Your task to perform on an android device: choose inbox layout in the gmail app Image 0: 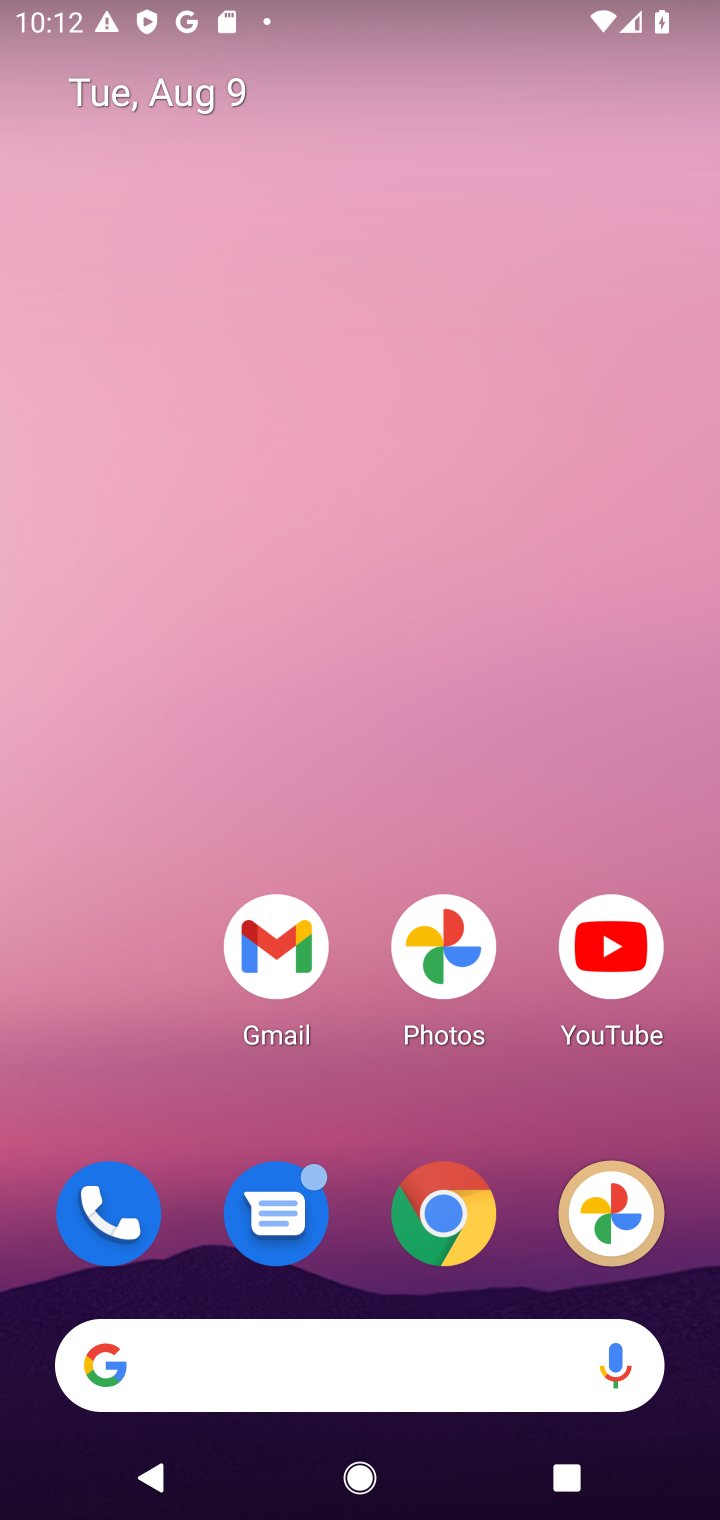
Step 0: drag from (340, 1278) to (671, 324)
Your task to perform on an android device: choose inbox layout in the gmail app Image 1: 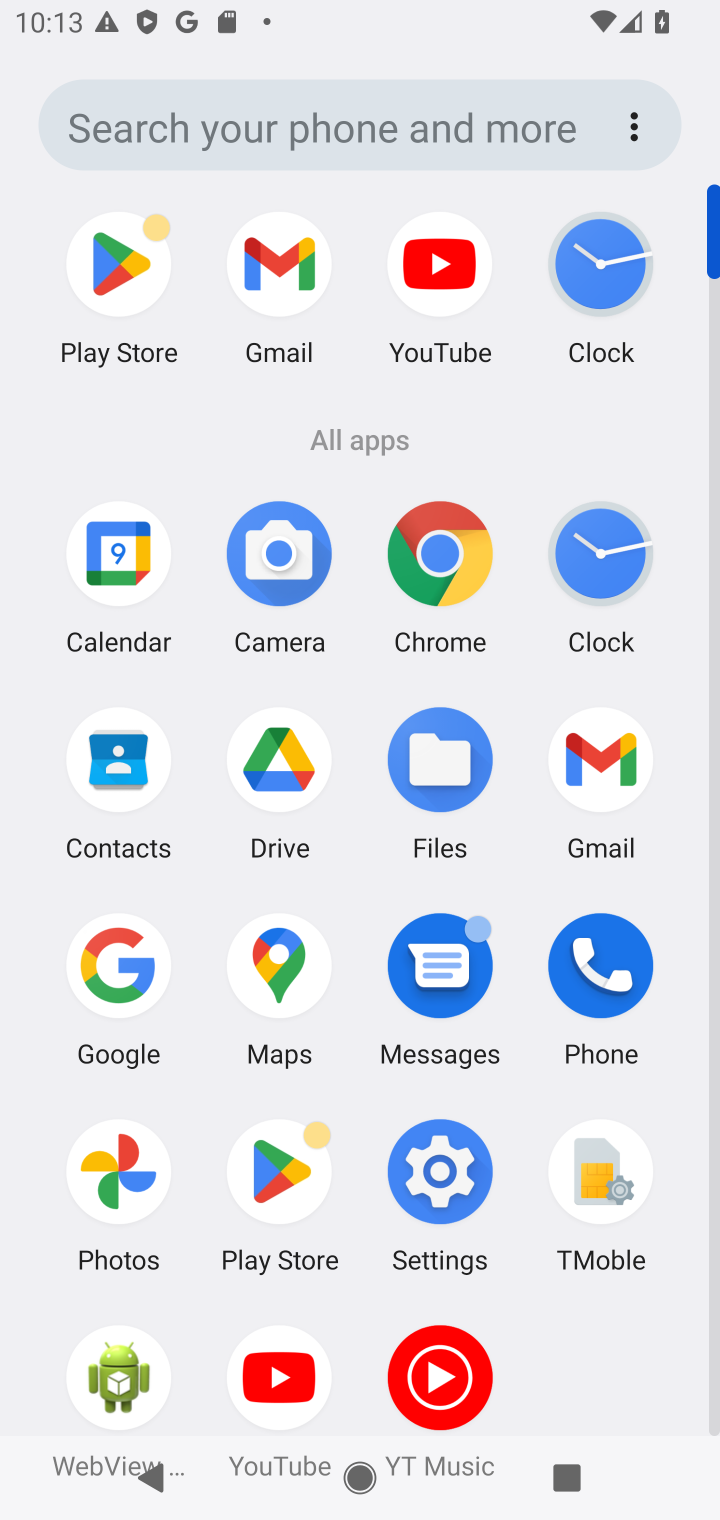
Step 1: click (582, 741)
Your task to perform on an android device: choose inbox layout in the gmail app Image 2: 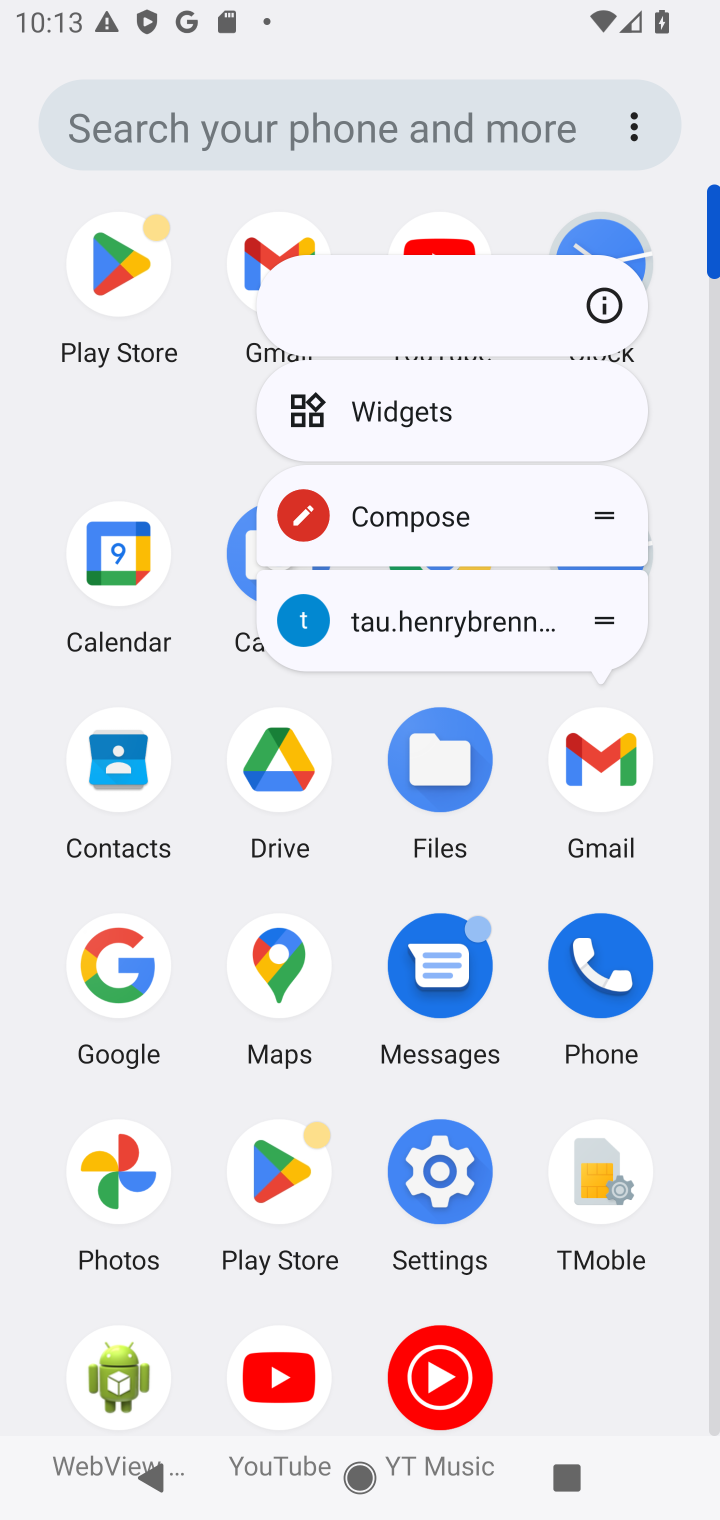
Step 2: click (632, 793)
Your task to perform on an android device: choose inbox layout in the gmail app Image 3: 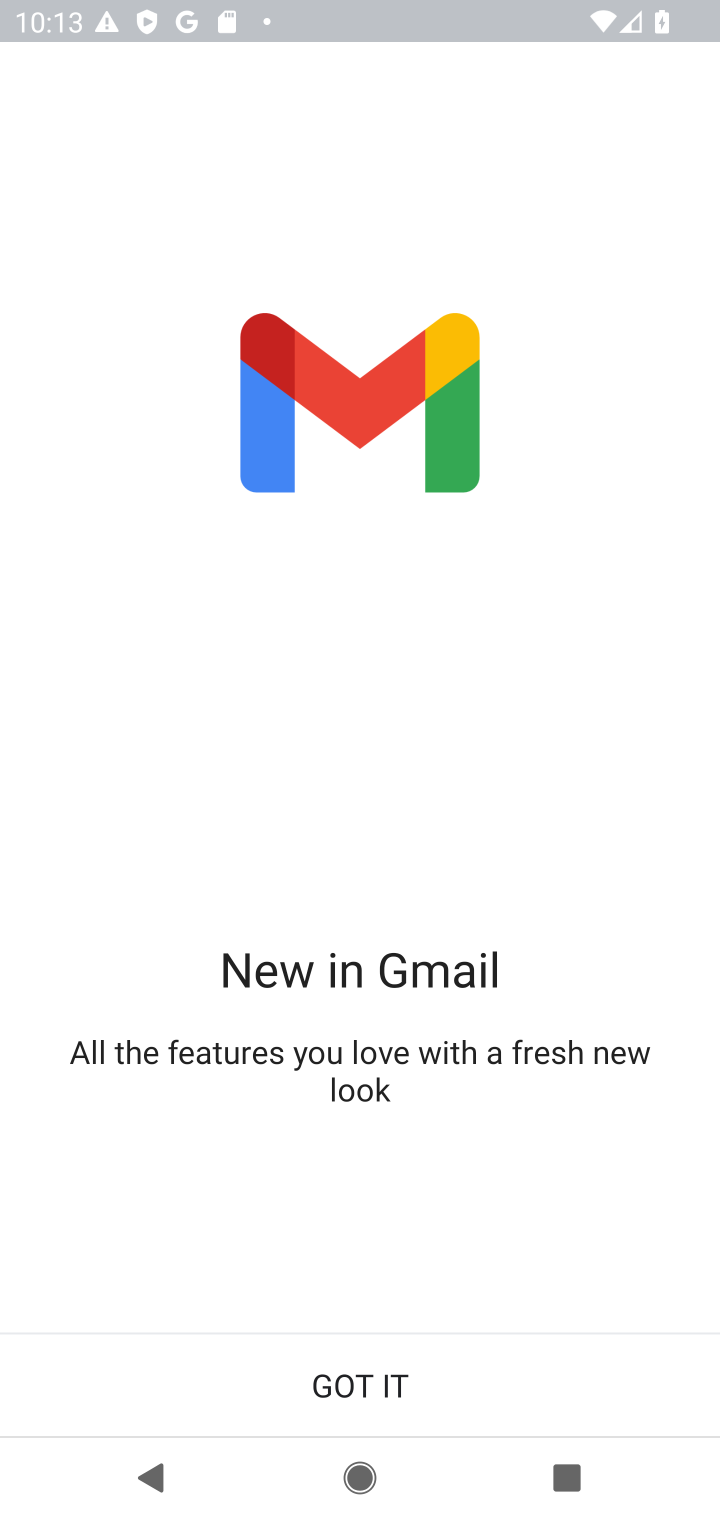
Step 3: click (441, 1382)
Your task to perform on an android device: choose inbox layout in the gmail app Image 4: 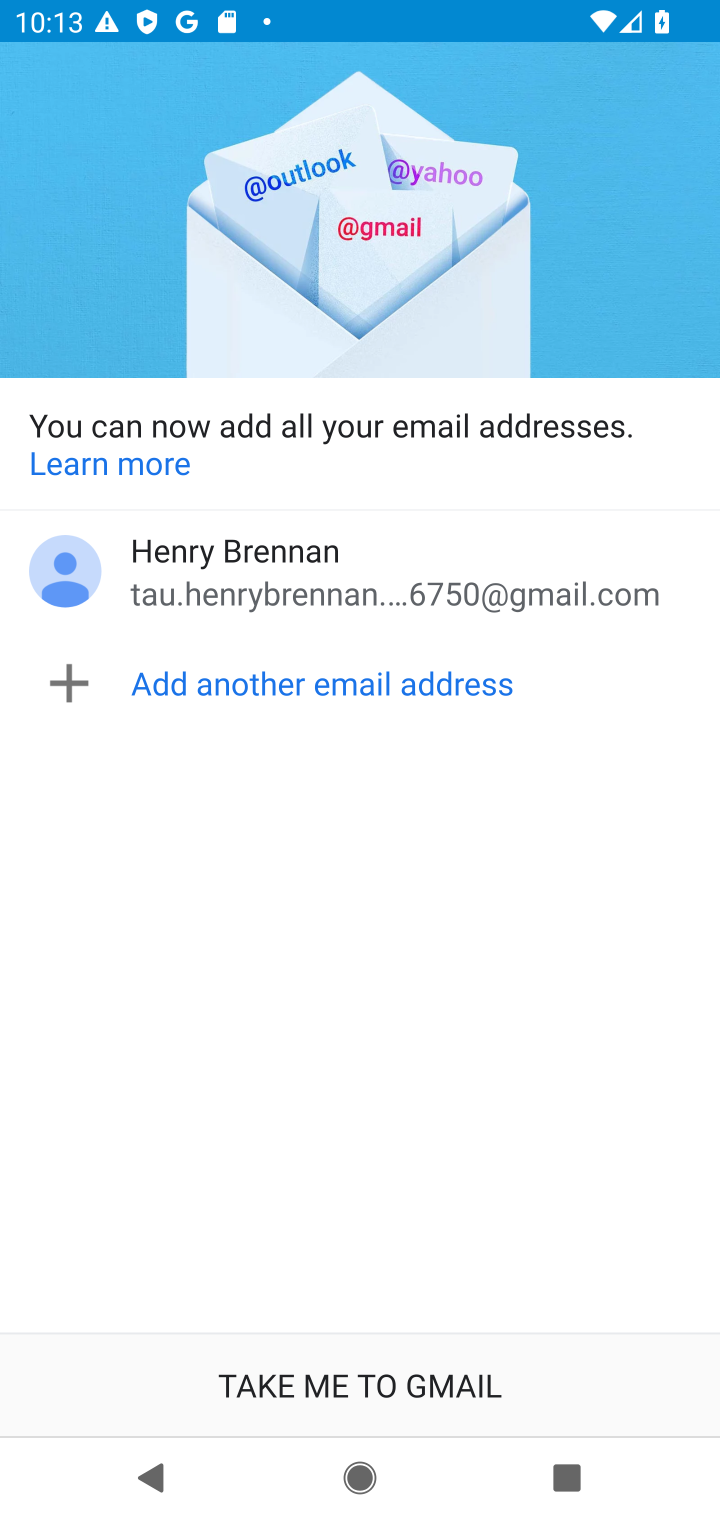
Step 4: click (481, 1342)
Your task to perform on an android device: choose inbox layout in the gmail app Image 5: 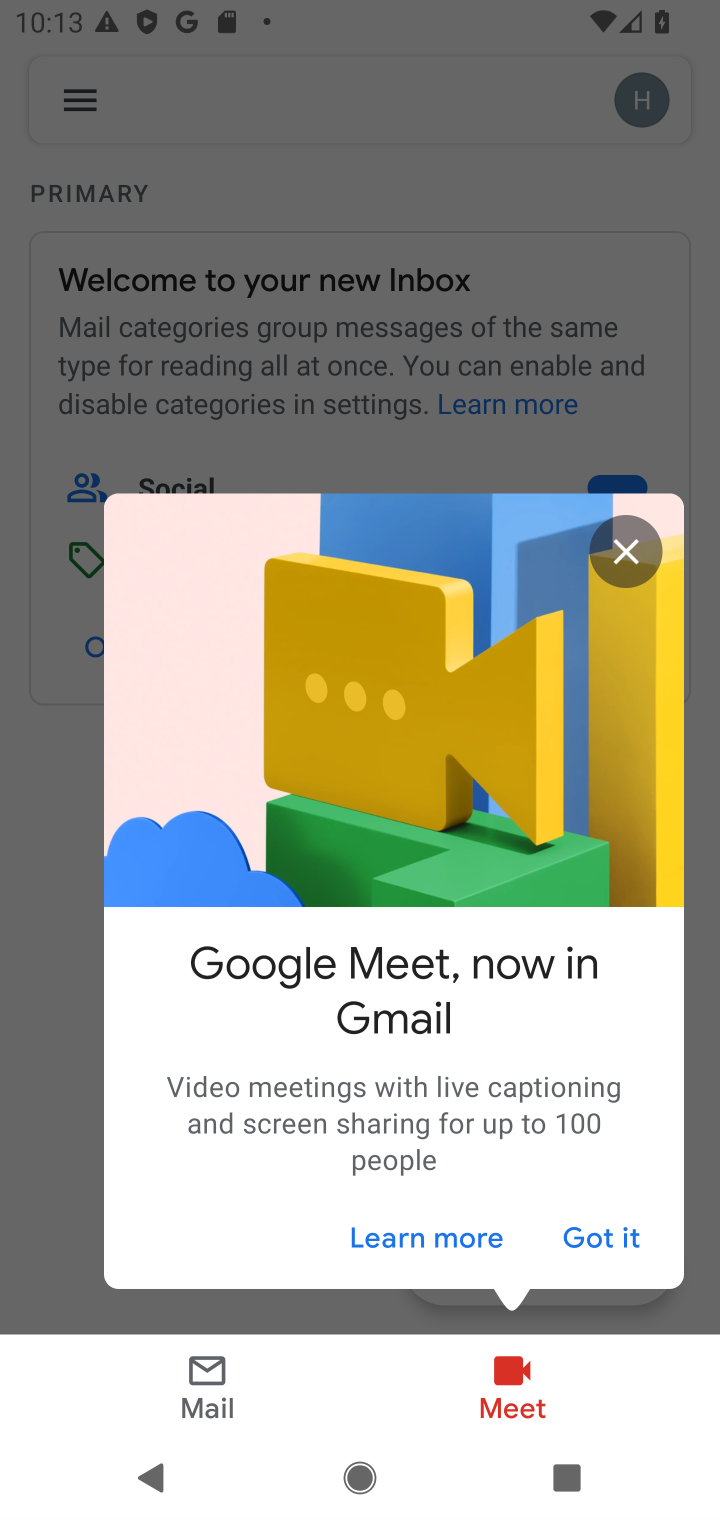
Step 5: click (592, 1253)
Your task to perform on an android device: choose inbox layout in the gmail app Image 6: 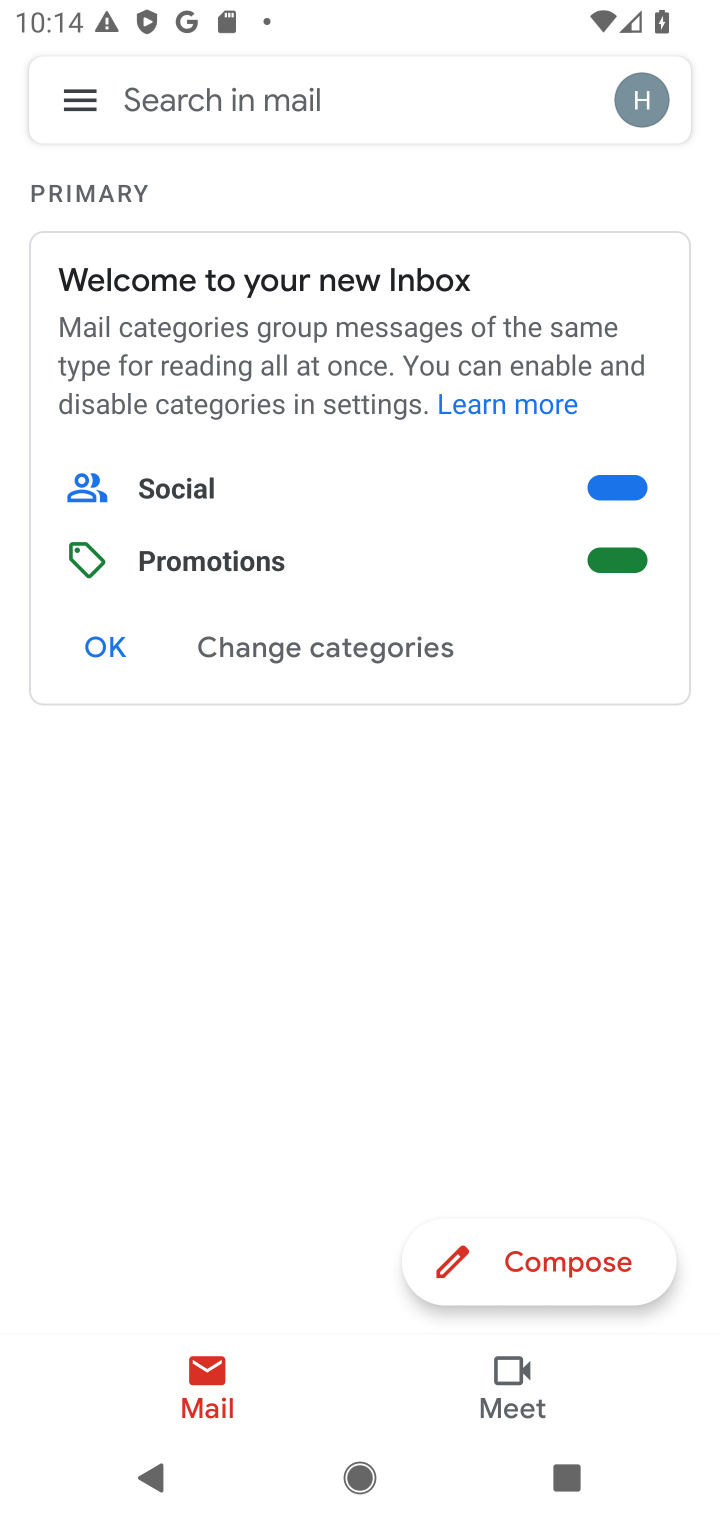
Step 6: click (77, 90)
Your task to perform on an android device: choose inbox layout in the gmail app Image 7: 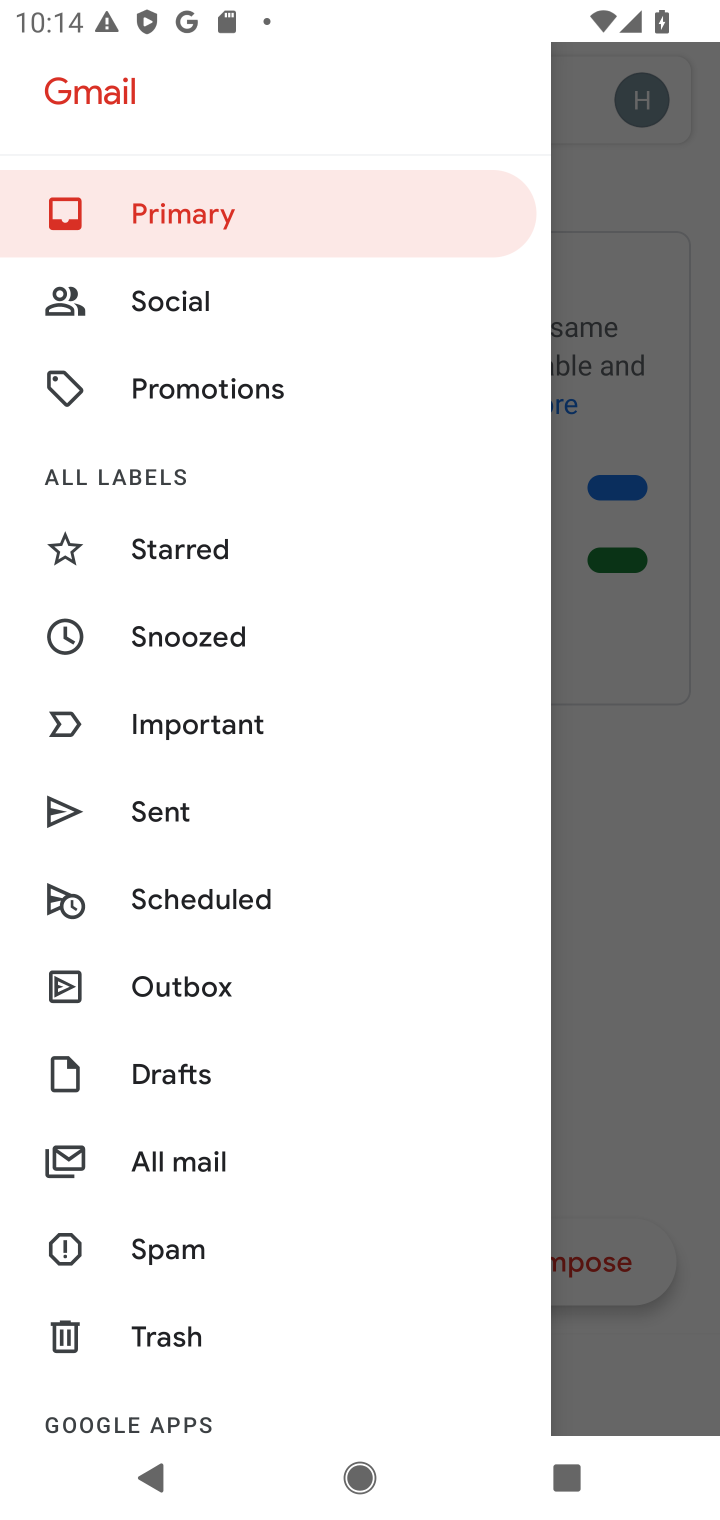
Step 7: drag from (251, 1175) to (628, 39)
Your task to perform on an android device: choose inbox layout in the gmail app Image 8: 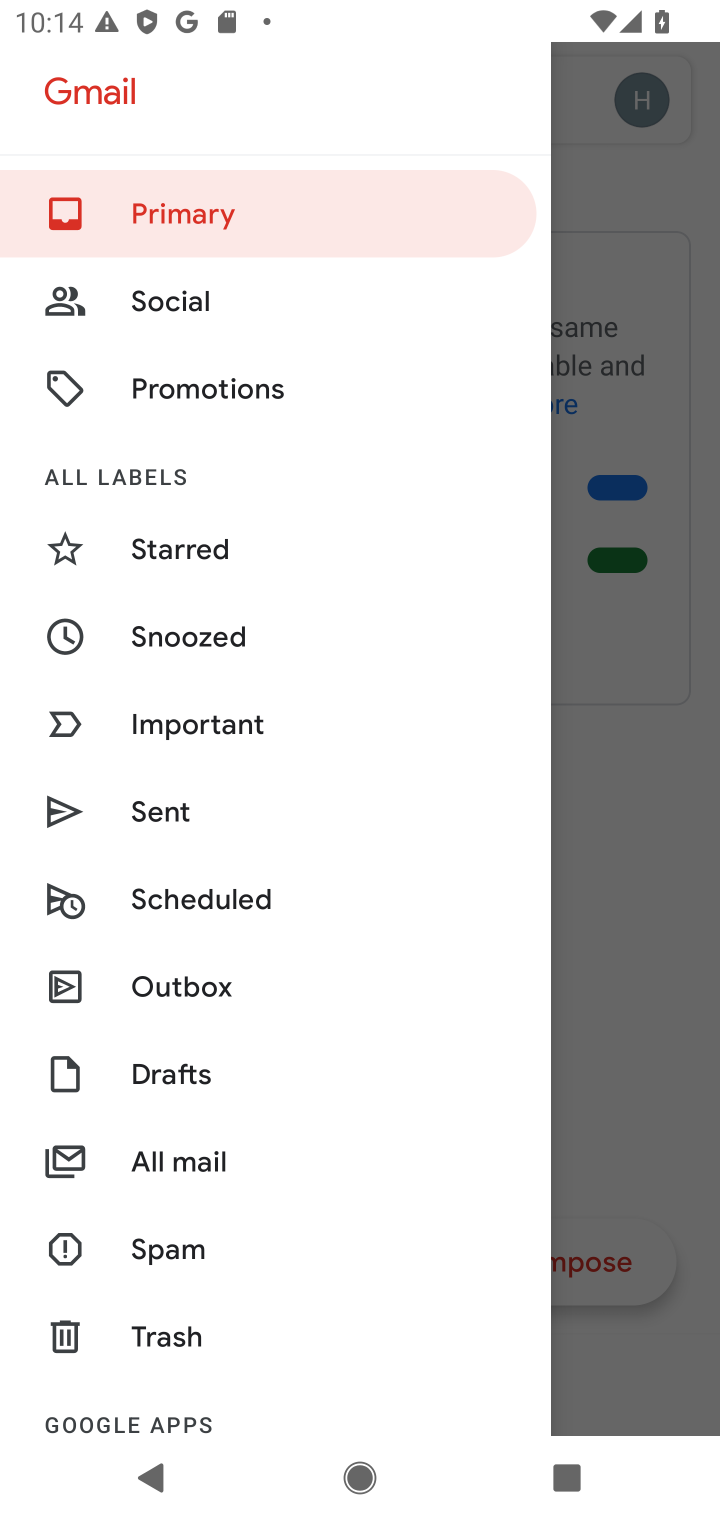
Step 8: drag from (277, 1285) to (171, 320)
Your task to perform on an android device: choose inbox layout in the gmail app Image 9: 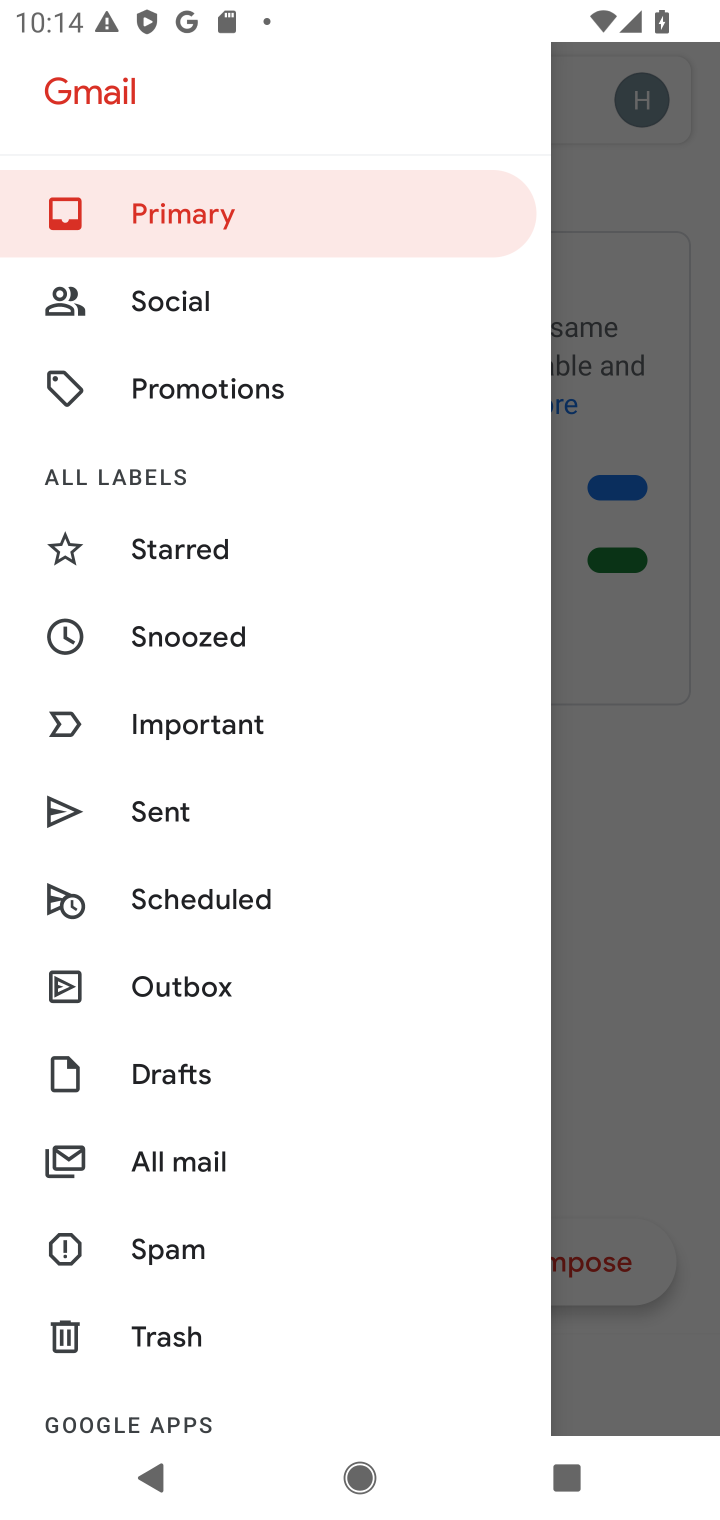
Step 9: drag from (197, 1088) to (136, 12)
Your task to perform on an android device: choose inbox layout in the gmail app Image 10: 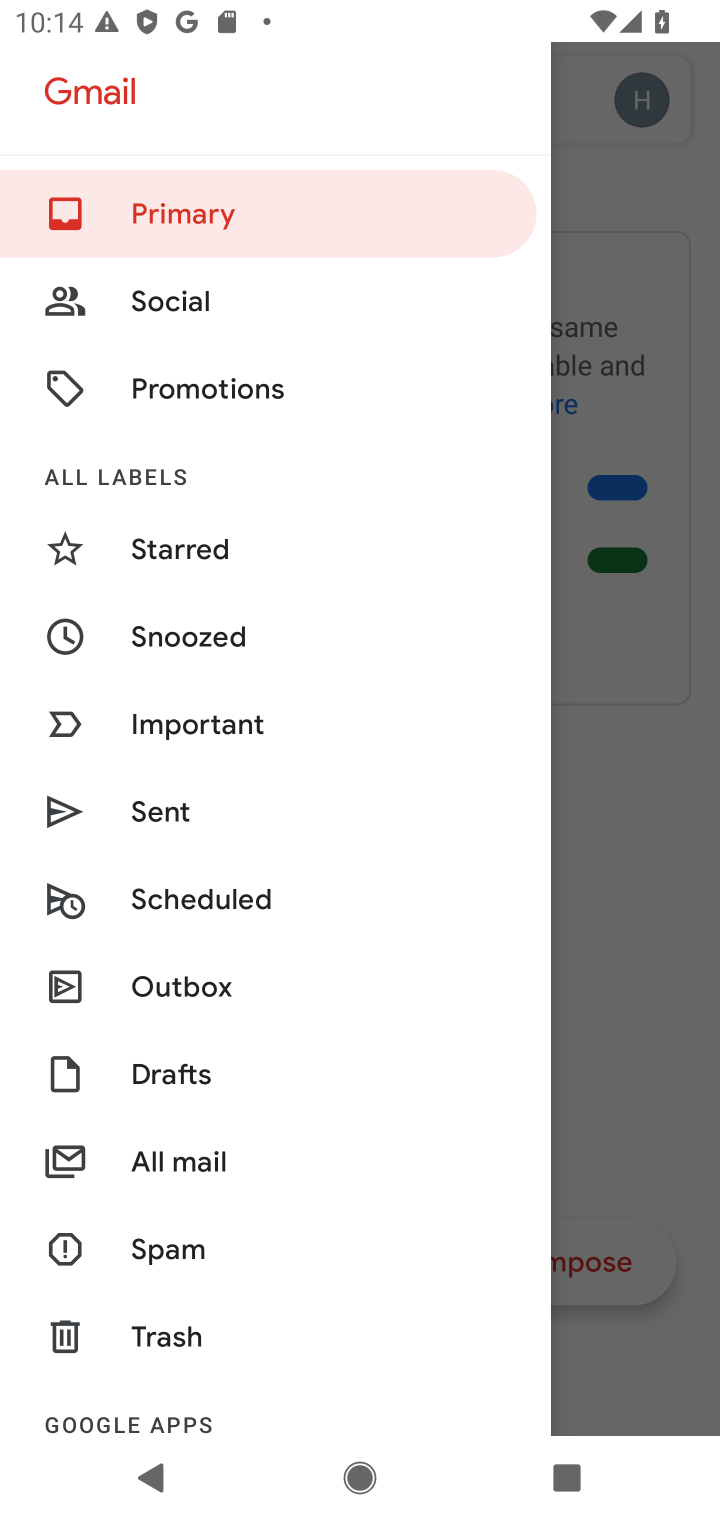
Step 10: drag from (330, 1281) to (330, 262)
Your task to perform on an android device: choose inbox layout in the gmail app Image 11: 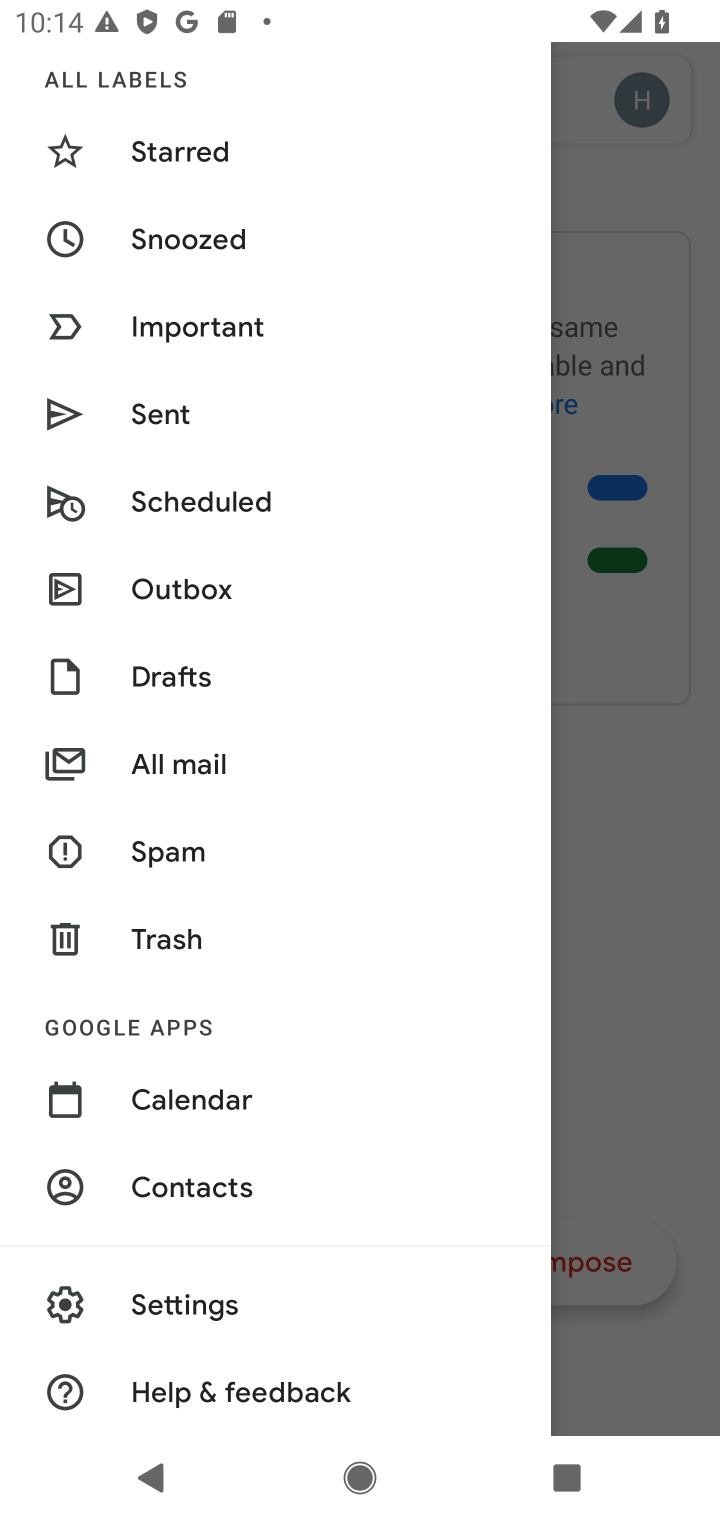
Step 11: click (160, 1296)
Your task to perform on an android device: choose inbox layout in the gmail app Image 12: 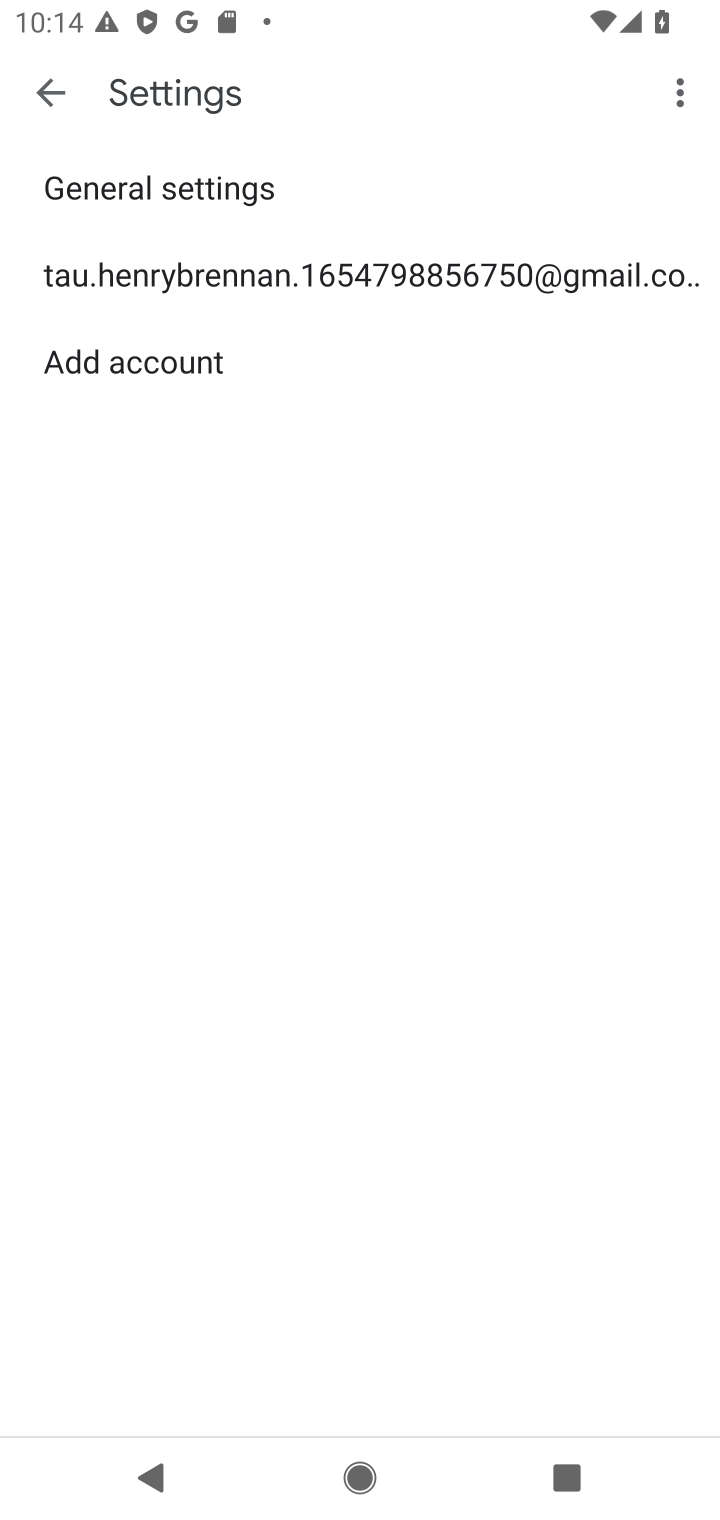
Step 12: click (80, 278)
Your task to perform on an android device: choose inbox layout in the gmail app Image 13: 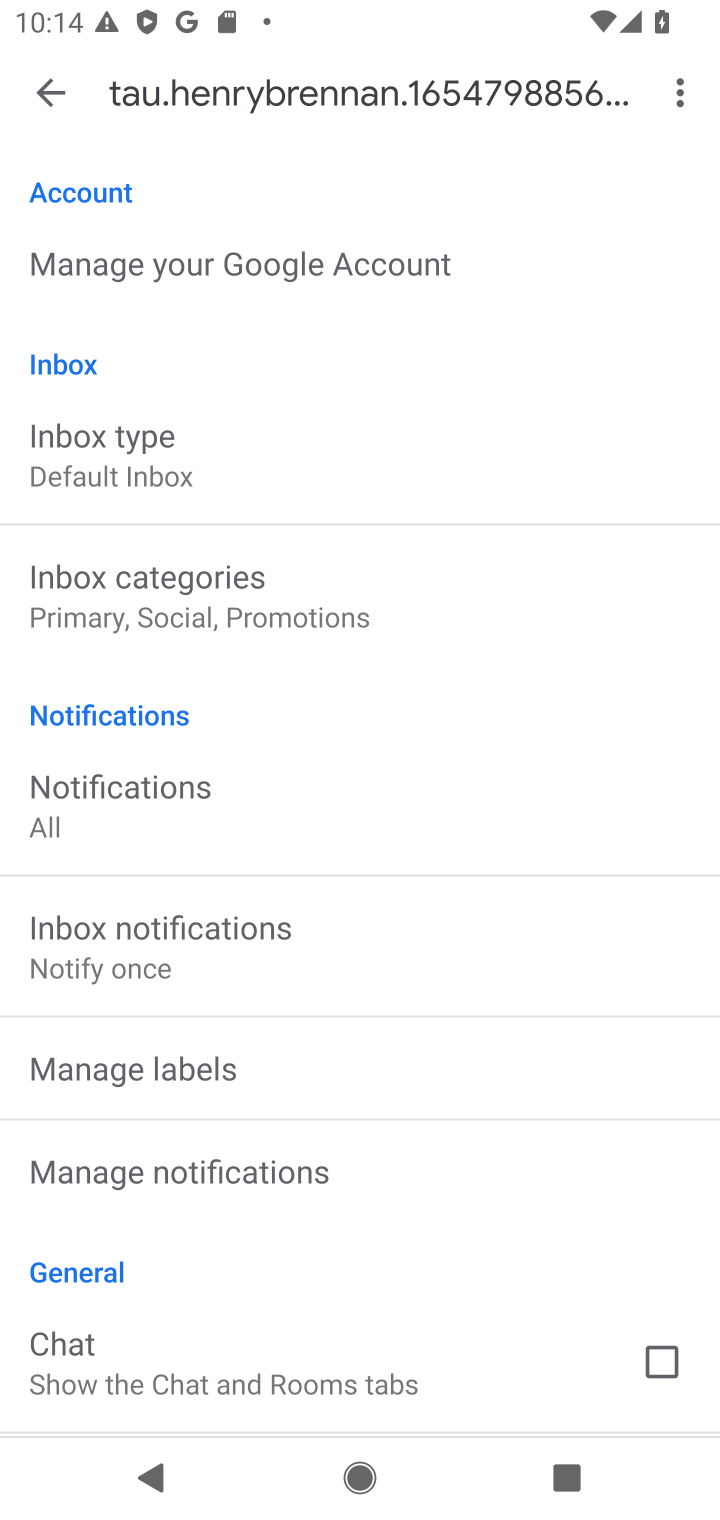
Step 13: click (127, 466)
Your task to perform on an android device: choose inbox layout in the gmail app Image 14: 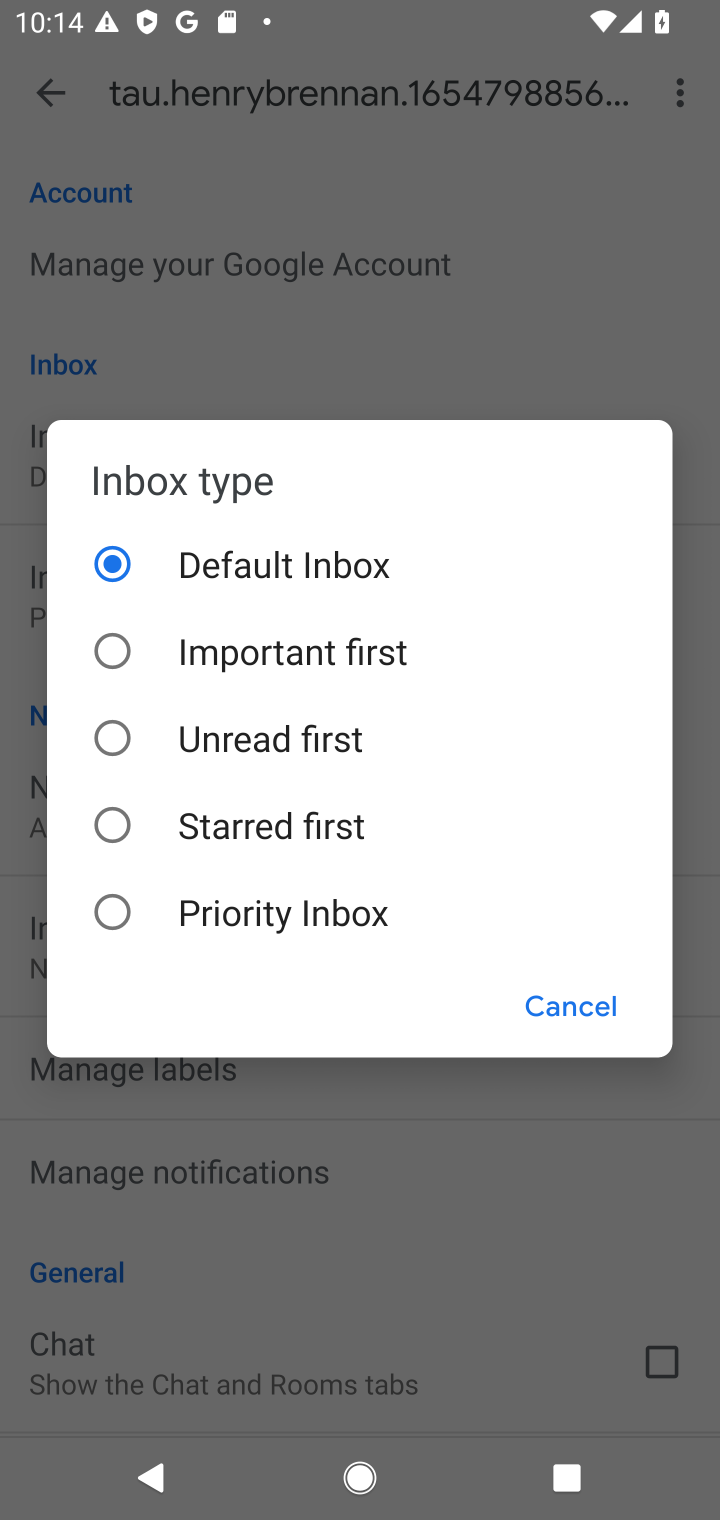
Step 14: click (155, 893)
Your task to perform on an android device: choose inbox layout in the gmail app Image 15: 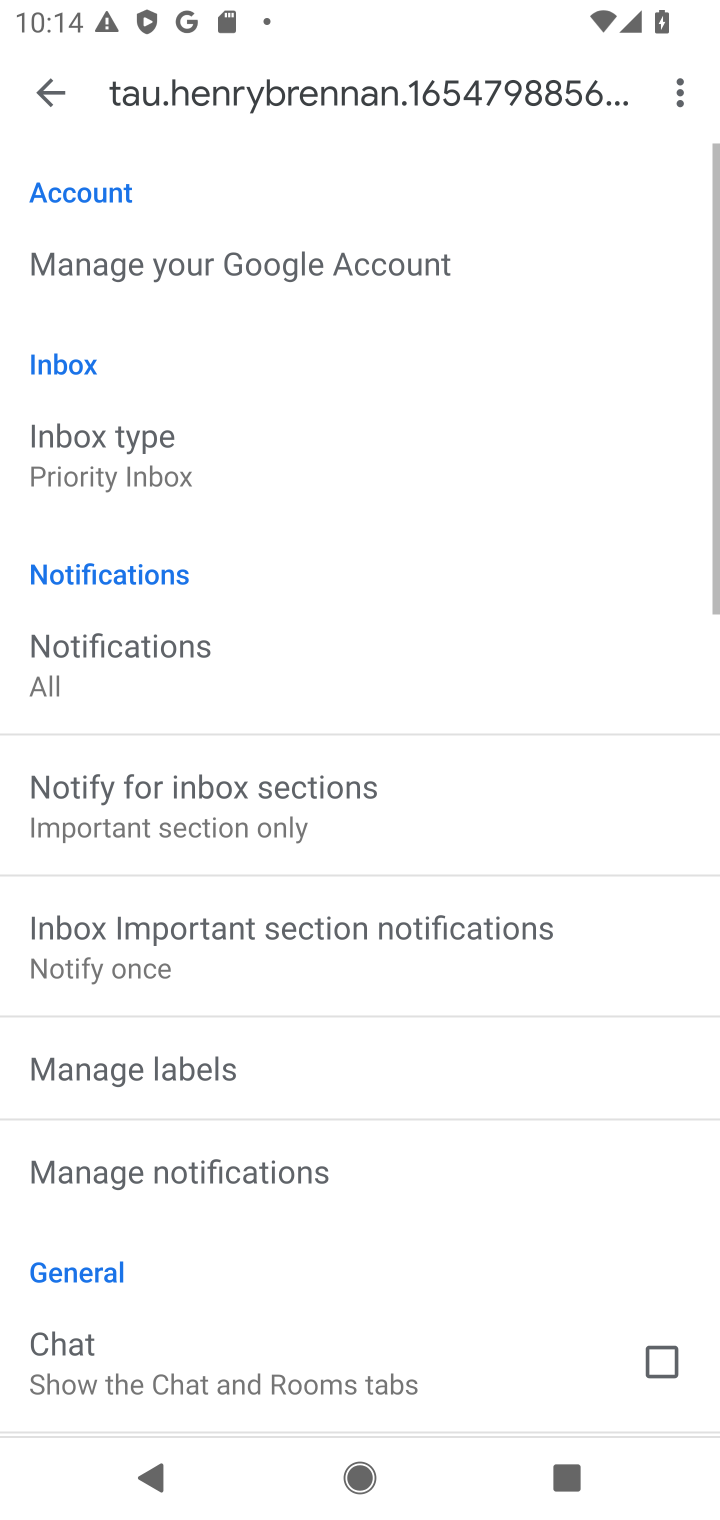
Step 15: click (19, 99)
Your task to perform on an android device: choose inbox layout in the gmail app Image 16: 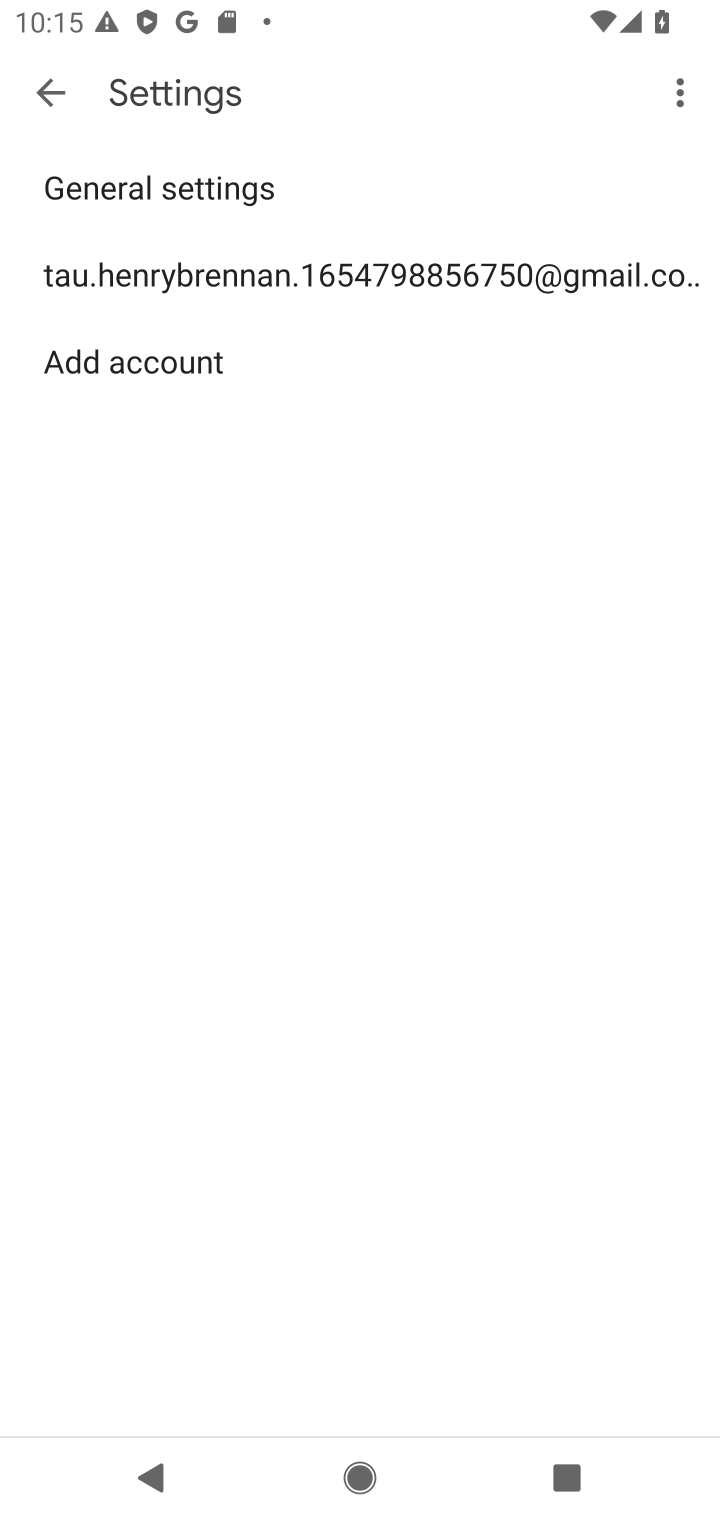
Step 16: click (43, 103)
Your task to perform on an android device: choose inbox layout in the gmail app Image 17: 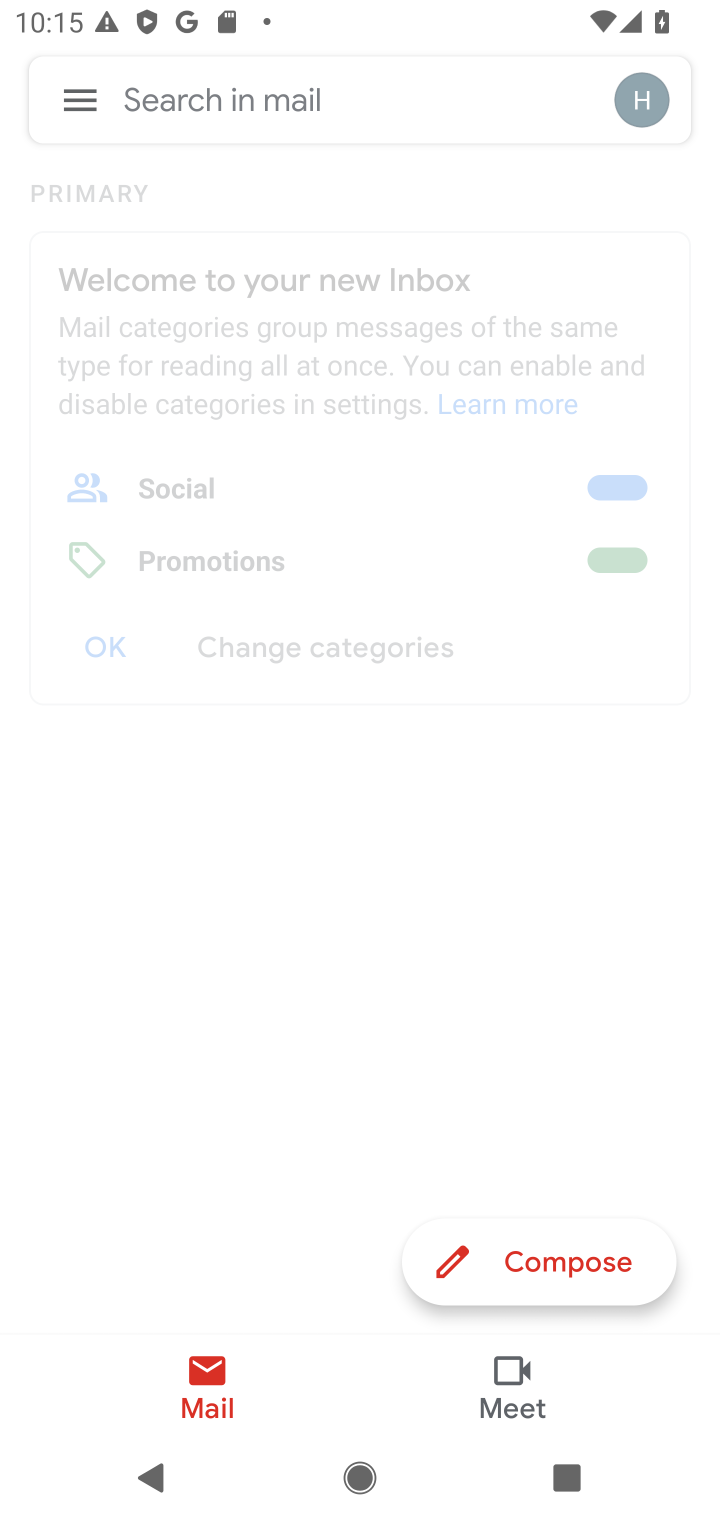
Step 17: task complete